Your task to perform on an android device: Check the news Image 0: 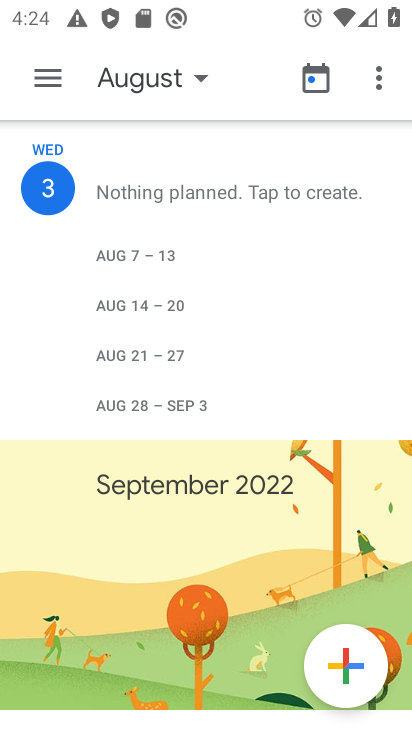
Step 0: press home button
Your task to perform on an android device: Check the news Image 1: 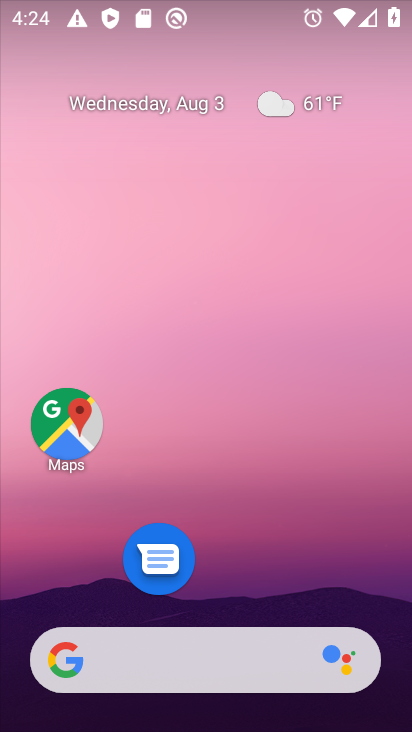
Step 1: drag from (184, 584) to (190, 128)
Your task to perform on an android device: Check the news Image 2: 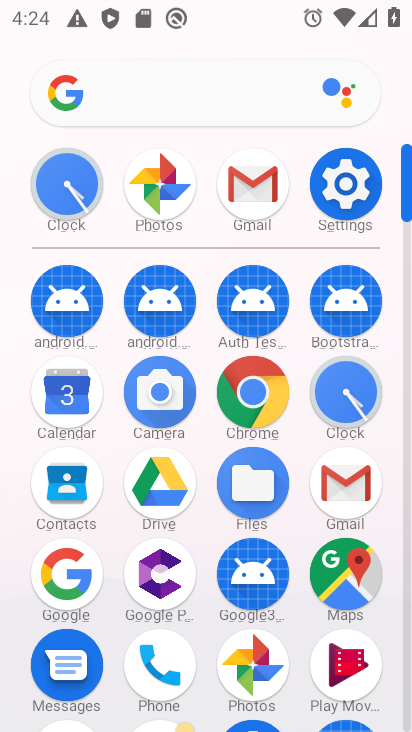
Step 2: click (67, 576)
Your task to perform on an android device: Check the news Image 3: 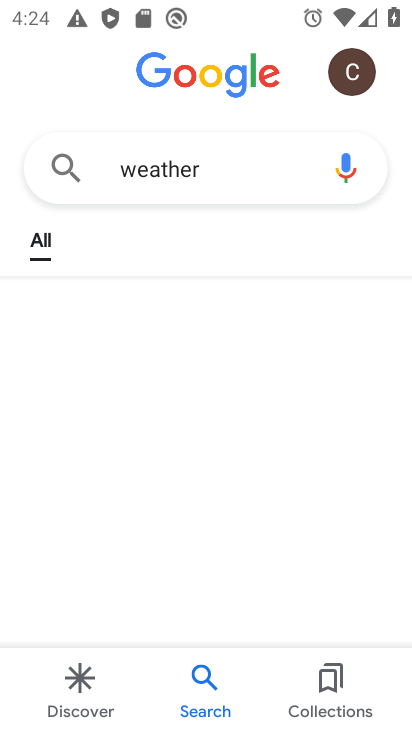
Step 3: click (228, 164)
Your task to perform on an android device: Check the news Image 4: 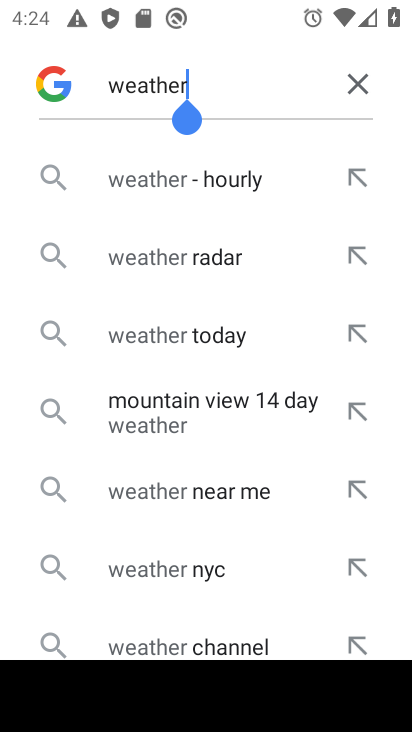
Step 4: click (353, 83)
Your task to perform on an android device: Check the news Image 5: 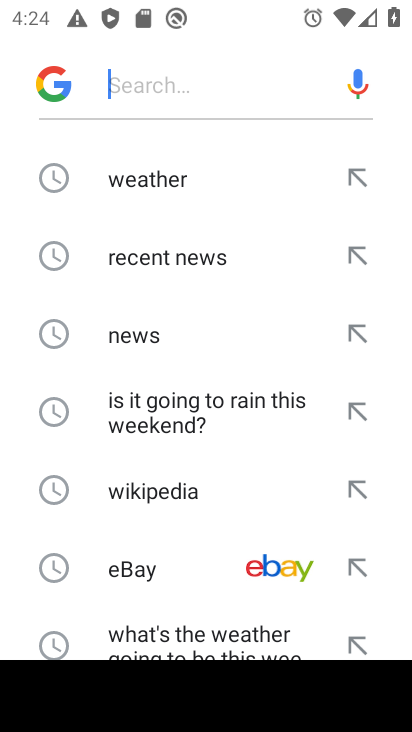
Step 5: click (142, 332)
Your task to perform on an android device: Check the news Image 6: 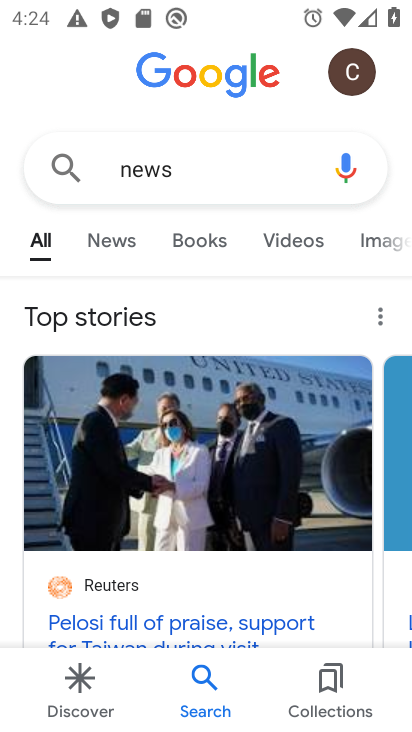
Step 6: task complete